Your task to perform on an android device: Do I have any events today? Image 0: 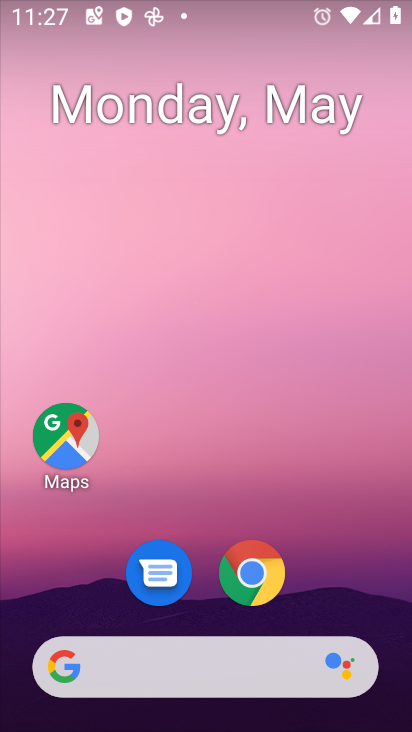
Step 0: drag from (347, 590) to (326, 157)
Your task to perform on an android device: Do I have any events today? Image 1: 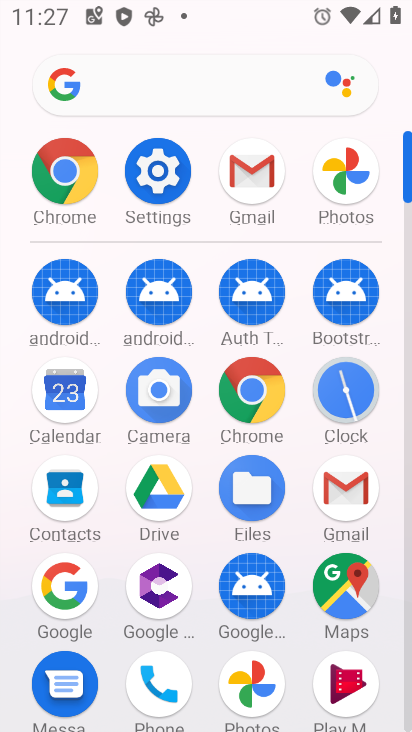
Step 1: click (142, 189)
Your task to perform on an android device: Do I have any events today? Image 2: 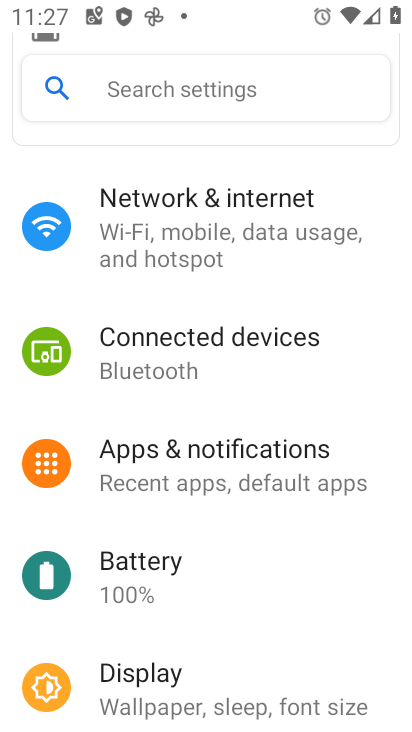
Step 2: press home button
Your task to perform on an android device: Do I have any events today? Image 3: 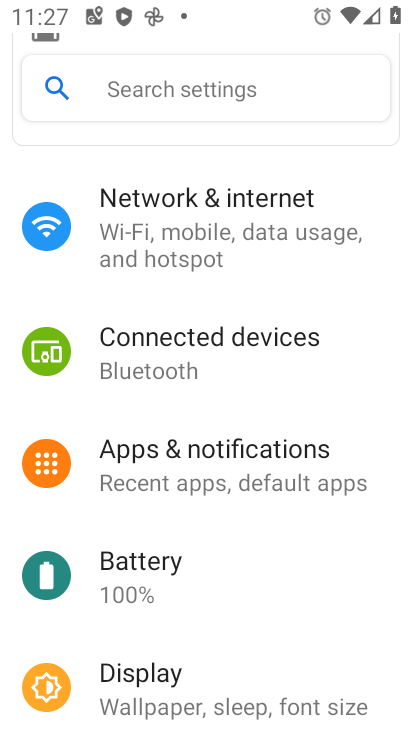
Step 3: press home button
Your task to perform on an android device: Do I have any events today? Image 4: 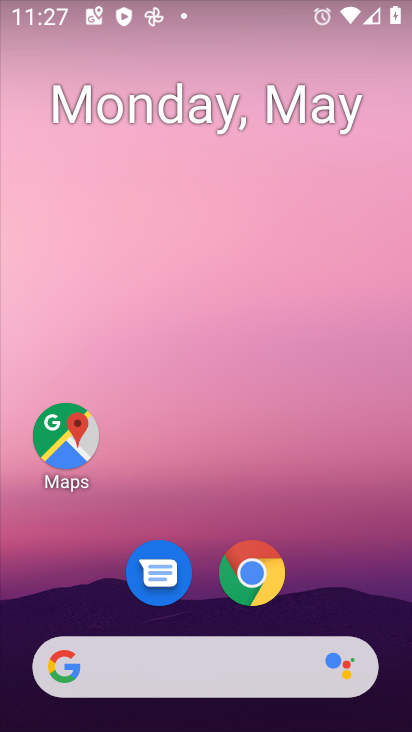
Step 4: drag from (342, 563) to (313, 4)
Your task to perform on an android device: Do I have any events today? Image 5: 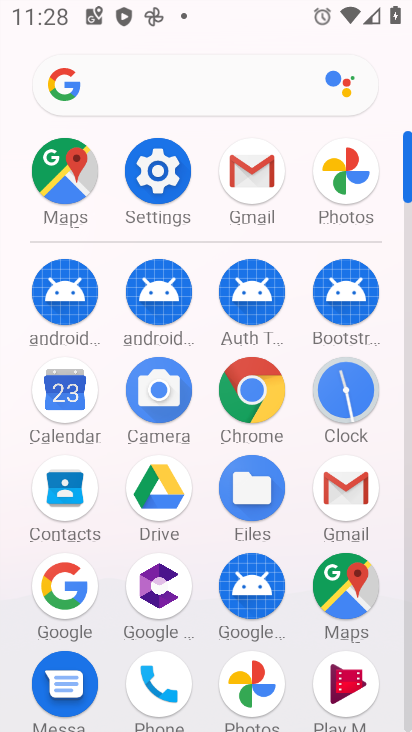
Step 5: click (53, 398)
Your task to perform on an android device: Do I have any events today? Image 6: 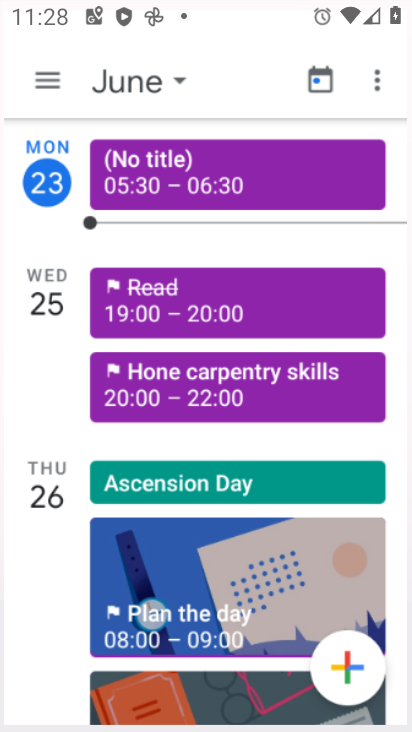
Step 6: task complete